Your task to perform on an android device: turn on sleep mode Image 0: 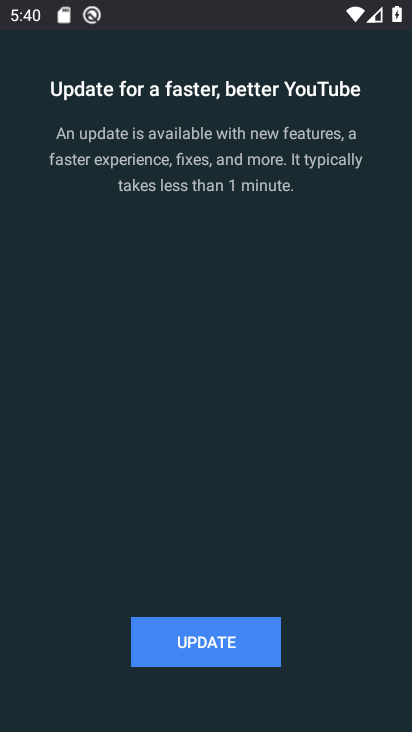
Step 0: press home button
Your task to perform on an android device: turn on sleep mode Image 1: 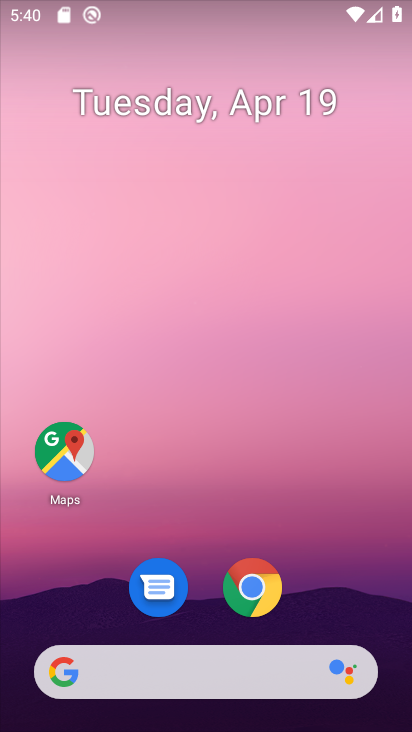
Step 1: drag from (359, 580) to (371, 1)
Your task to perform on an android device: turn on sleep mode Image 2: 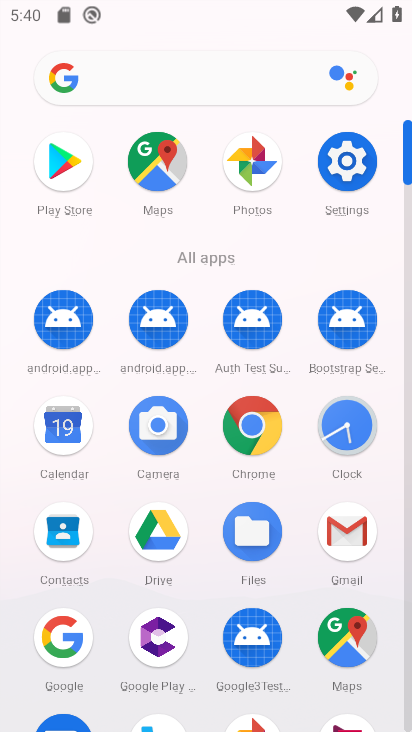
Step 2: click (344, 155)
Your task to perform on an android device: turn on sleep mode Image 3: 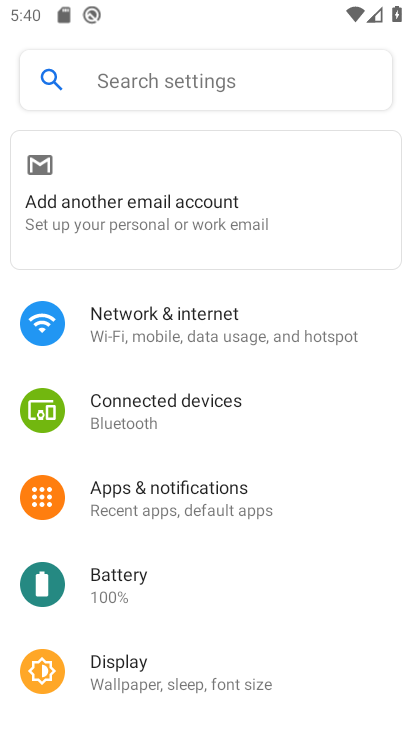
Step 3: click (186, 78)
Your task to perform on an android device: turn on sleep mode Image 4: 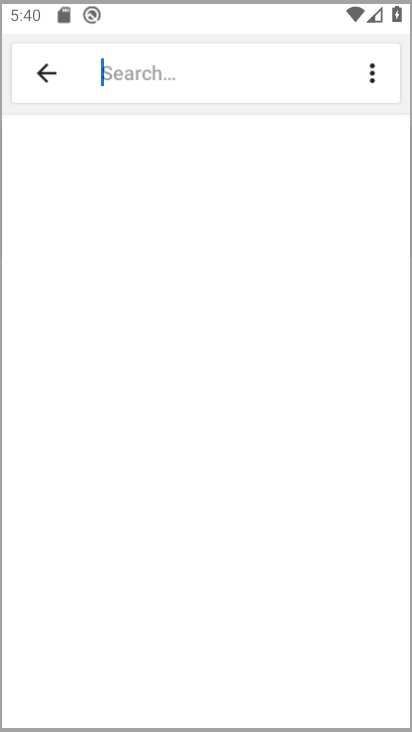
Step 4: click (157, 72)
Your task to perform on an android device: turn on sleep mode Image 5: 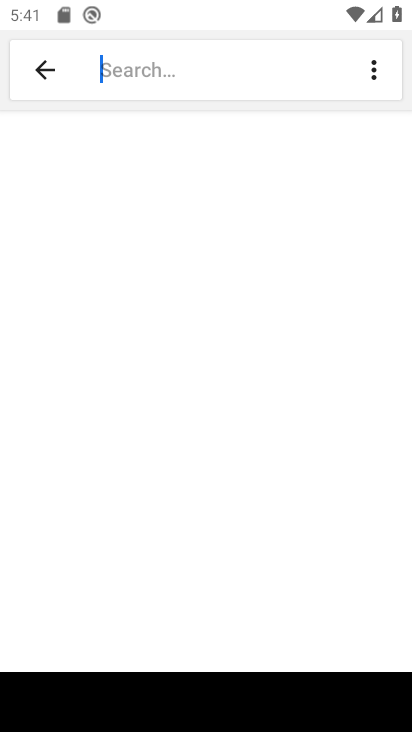
Step 5: click (376, 572)
Your task to perform on an android device: turn on sleep mode Image 6: 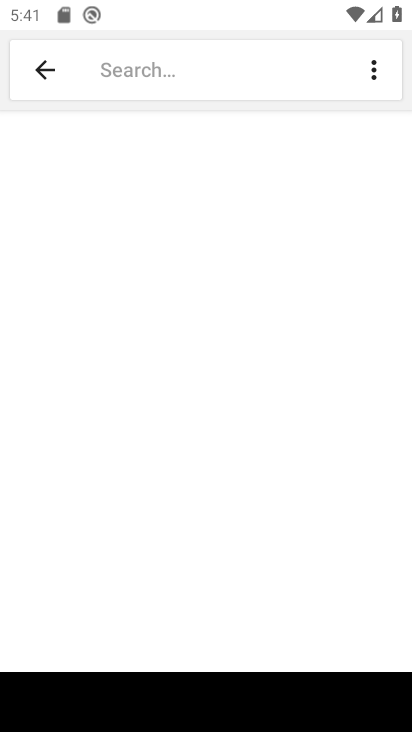
Step 6: type "sleep mode"
Your task to perform on an android device: turn on sleep mode Image 7: 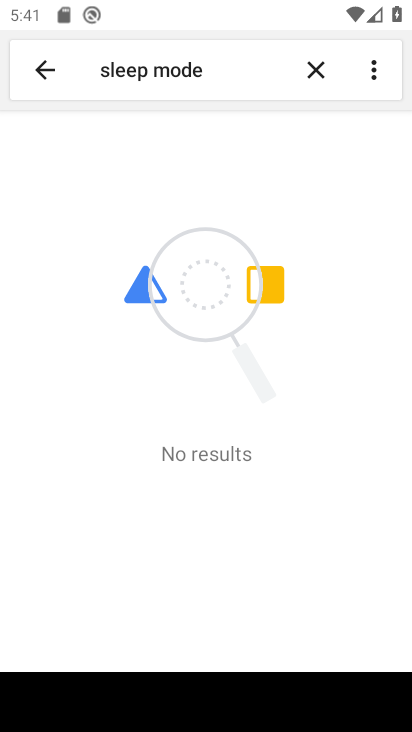
Step 7: task complete